Your task to perform on an android device: Go to Maps Image 0: 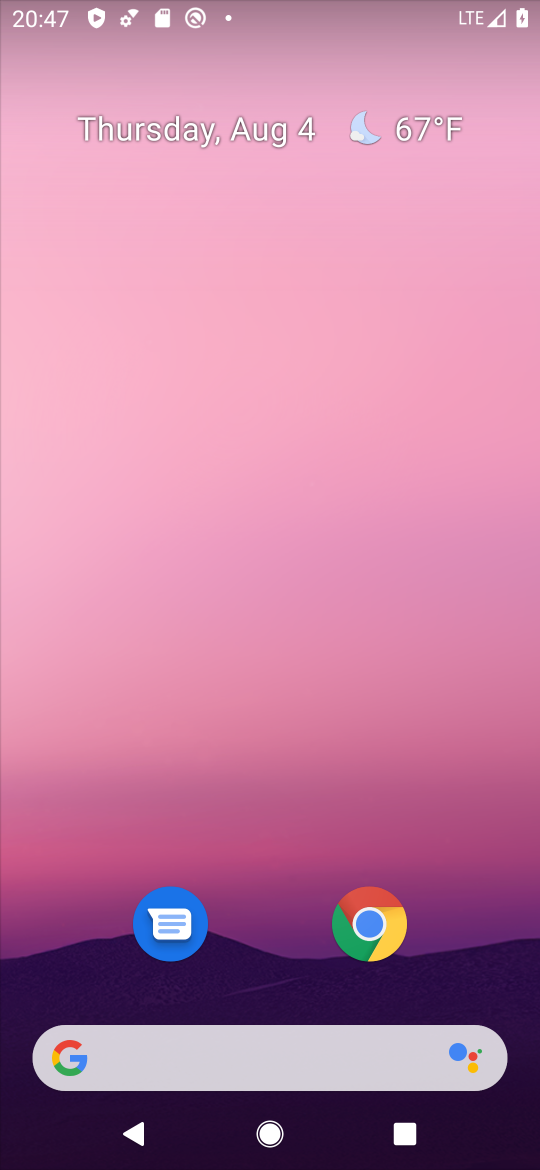
Step 0: click (352, 935)
Your task to perform on an android device: Go to Maps Image 1: 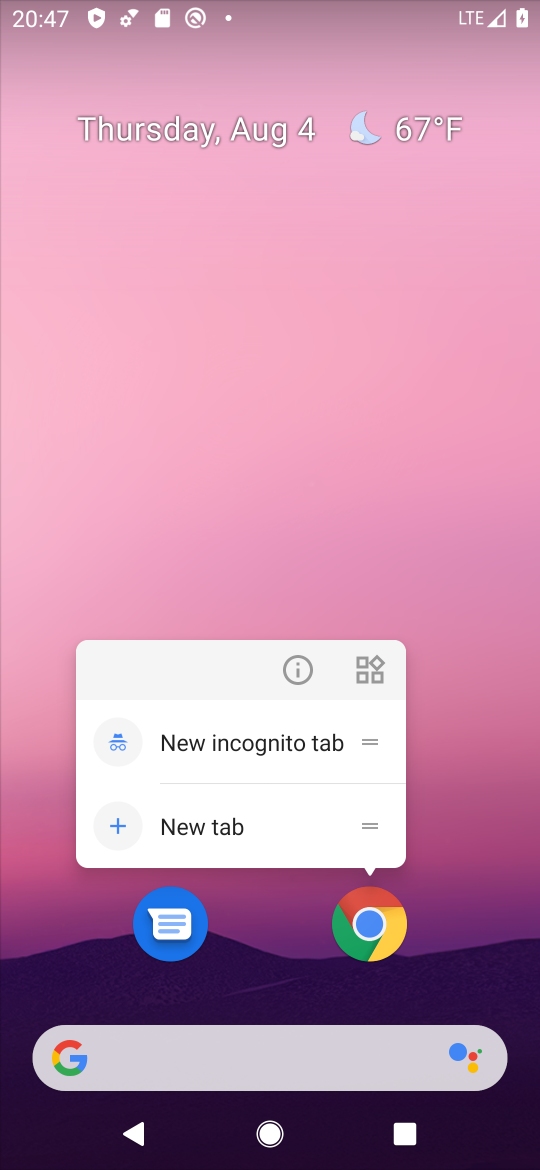
Step 1: click (263, 587)
Your task to perform on an android device: Go to Maps Image 2: 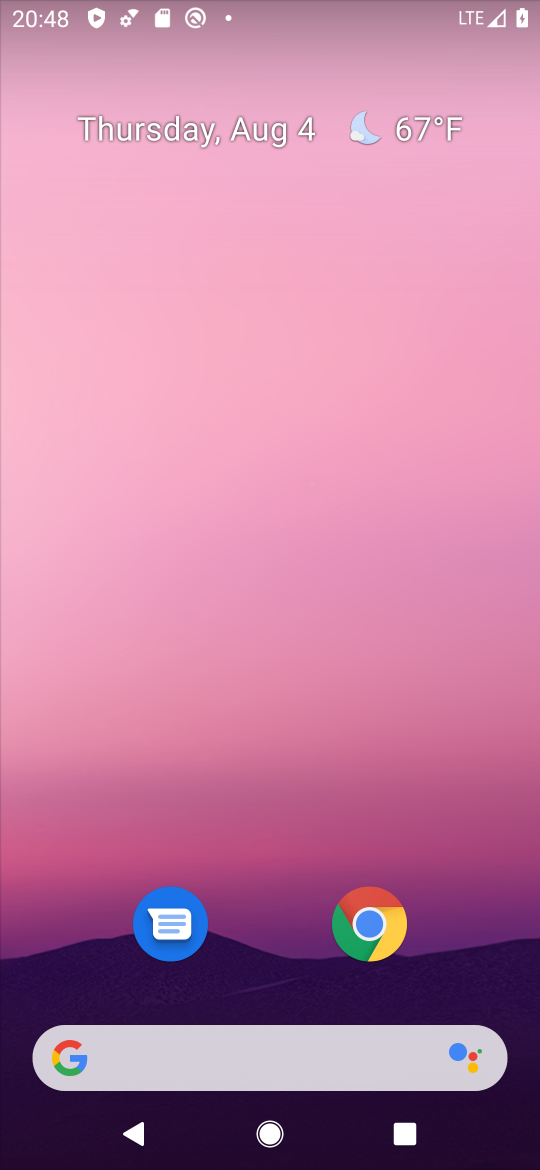
Step 2: drag from (258, 993) to (263, 33)
Your task to perform on an android device: Go to Maps Image 3: 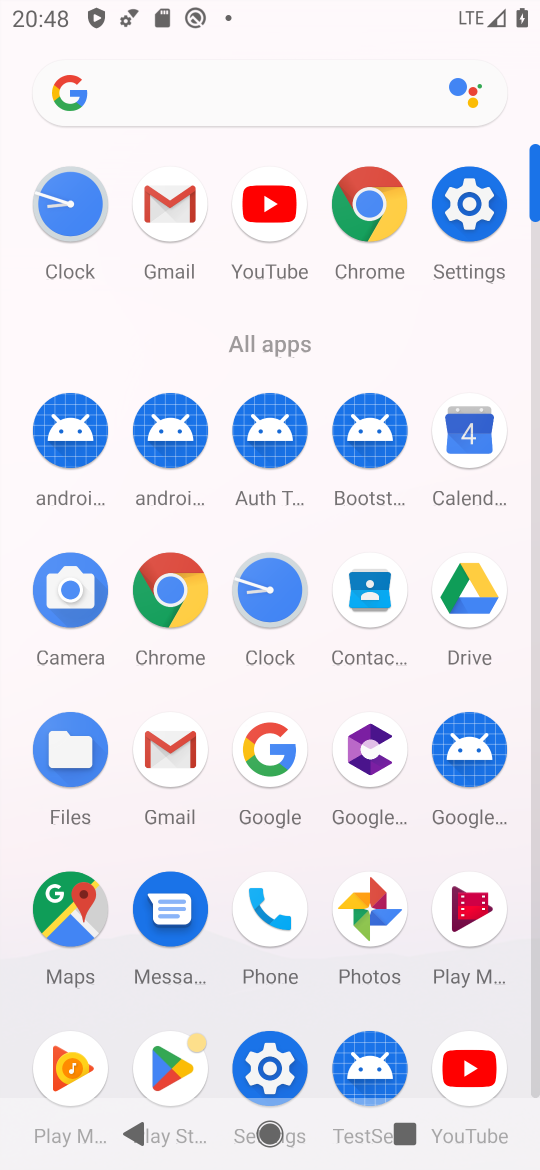
Step 3: click (61, 913)
Your task to perform on an android device: Go to Maps Image 4: 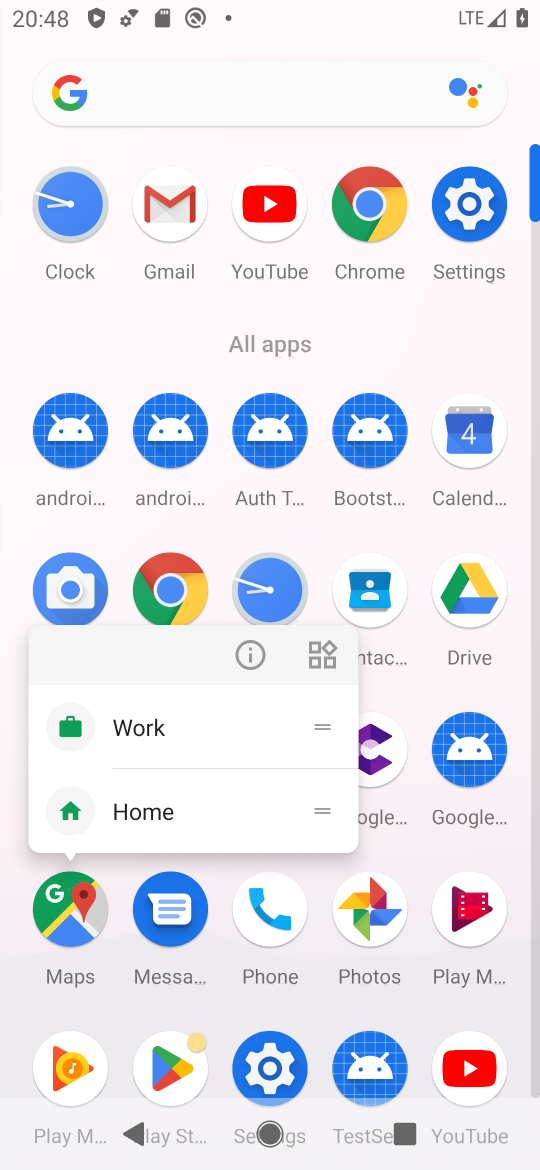
Step 4: click (59, 908)
Your task to perform on an android device: Go to Maps Image 5: 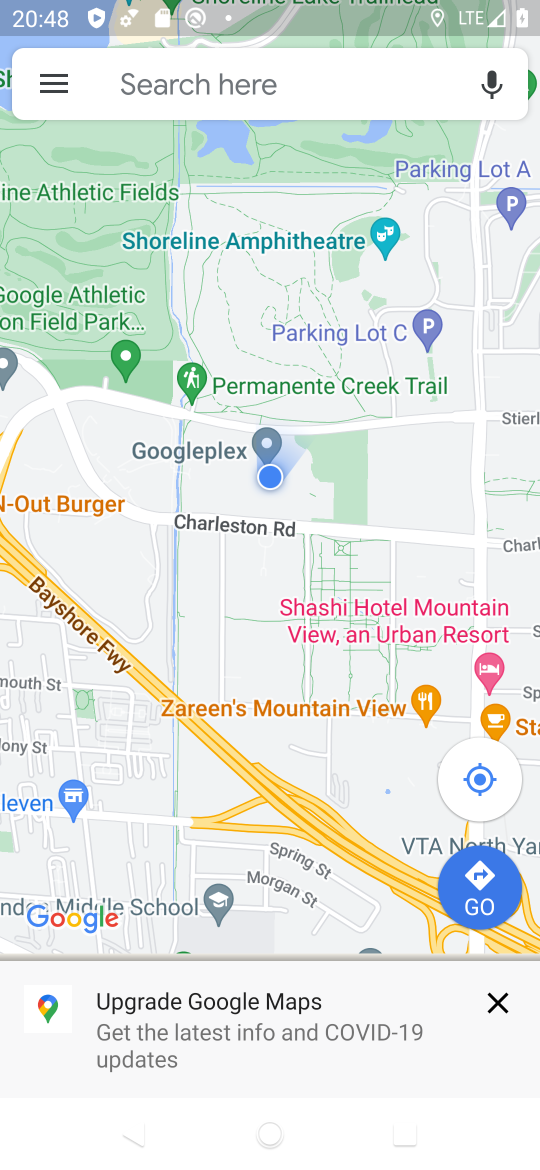
Step 5: task complete